Your task to perform on an android device: Open calendar and show me the third week of next month Image 0: 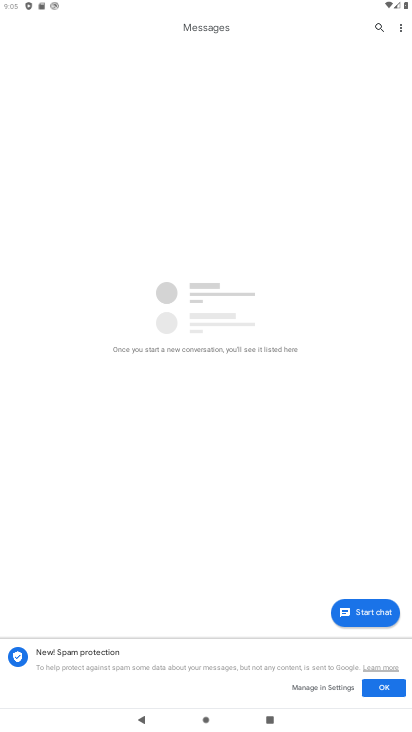
Step 0: press home button
Your task to perform on an android device: Open calendar and show me the third week of next month Image 1: 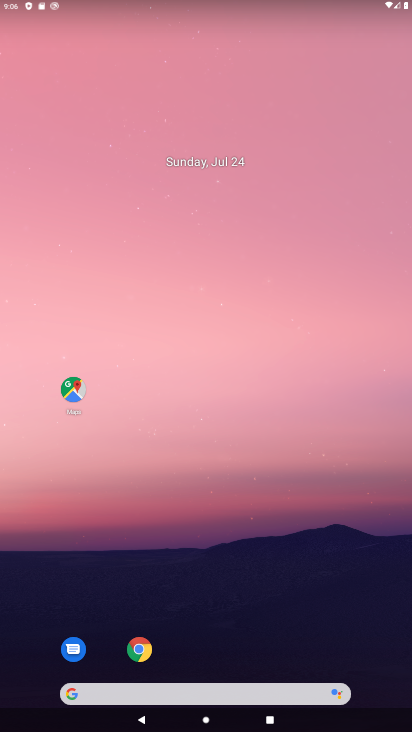
Step 1: click (224, 205)
Your task to perform on an android device: Open calendar and show me the third week of next month Image 2: 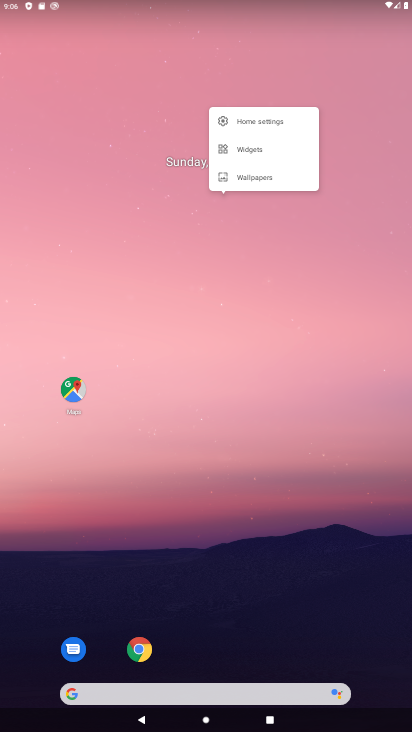
Step 2: drag from (178, 622) to (97, 63)
Your task to perform on an android device: Open calendar and show me the third week of next month Image 3: 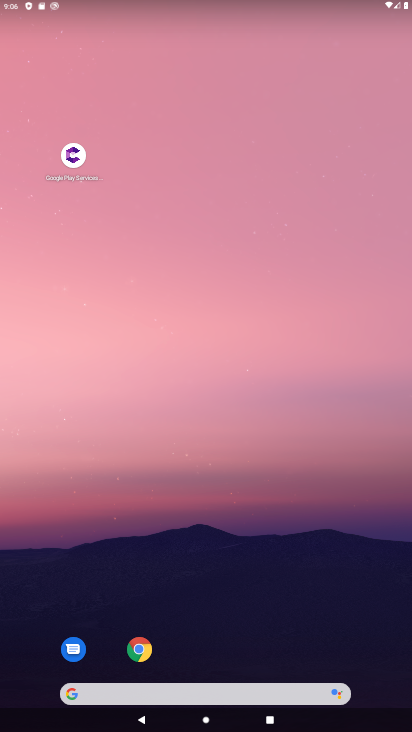
Step 3: click (191, 70)
Your task to perform on an android device: Open calendar and show me the third week of next month Image 4: 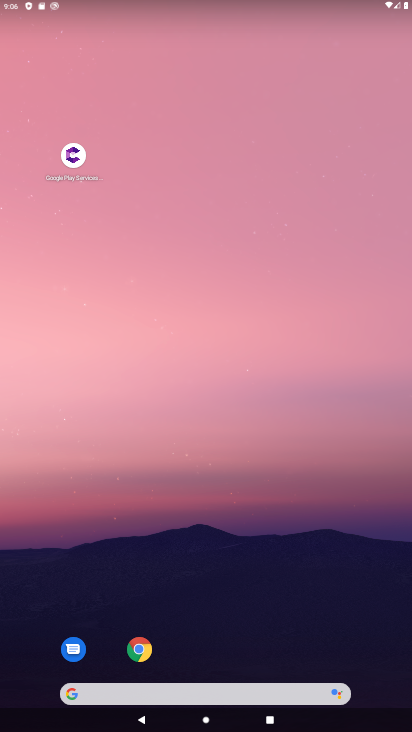
Step 4: drag from (183, 660) to (187, 114)
Your task to perform on an android device: Open calendar and show me the third week of next month Image 5: 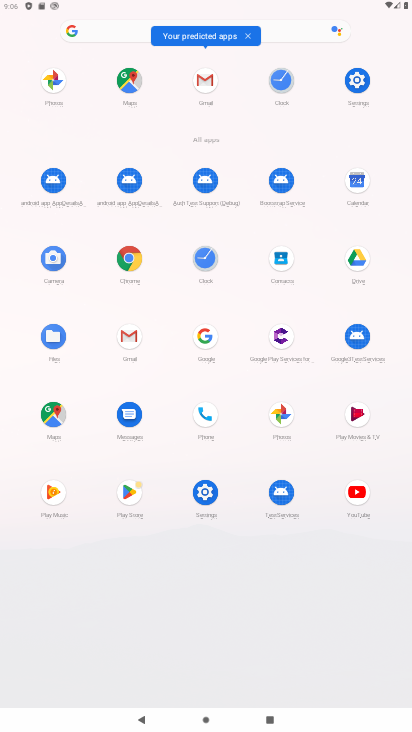
Step 5: click (352, 194)
Your task to perform on an android device: Open calendar and show me the third week of next month Image 6: 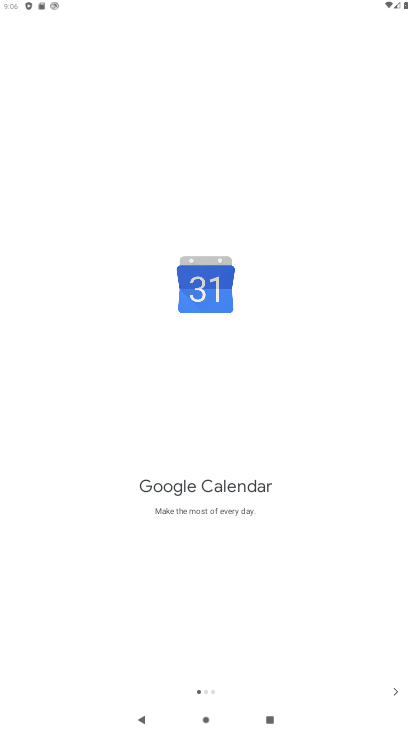
Step 6: click (397, 693)
Your task to perform on an android device: Open calendar and show me the third week of next month Image 7: 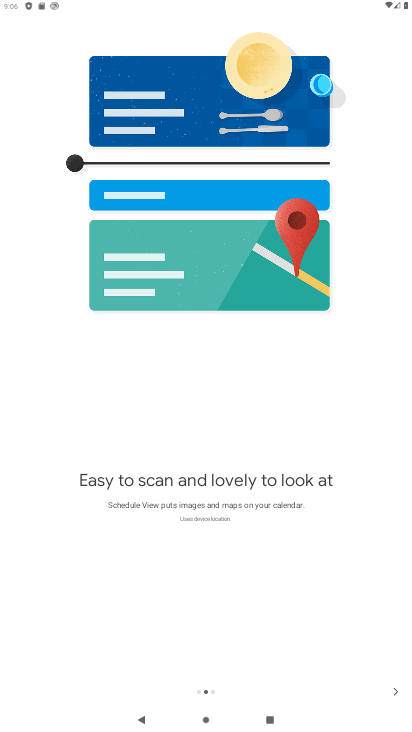
Step 7: click (397, 693)
Your task to perform on an android device: Open calendar and show me the third week of next month Image 8: 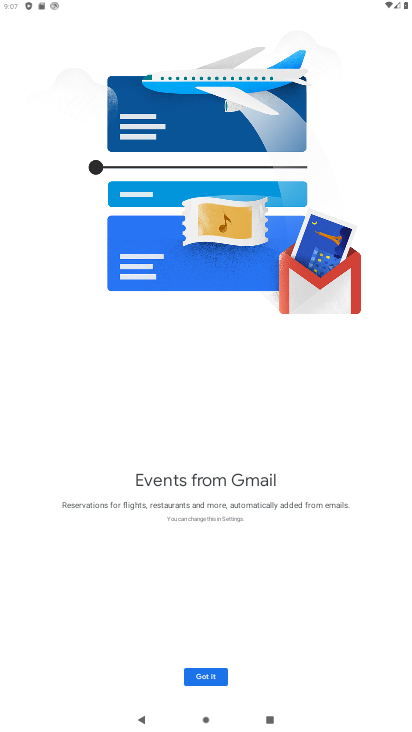
Step 8: click (397, 693)
Your task to perform on an android device: Open calendar and show me the third week of next month Image 9: 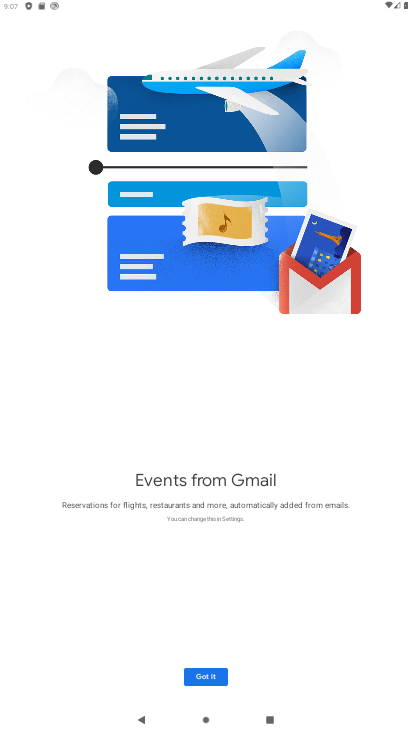
Step 9: click (394, 698)
Your task to perform on an android device: Open calendar and show me the third week of next month Image 10: 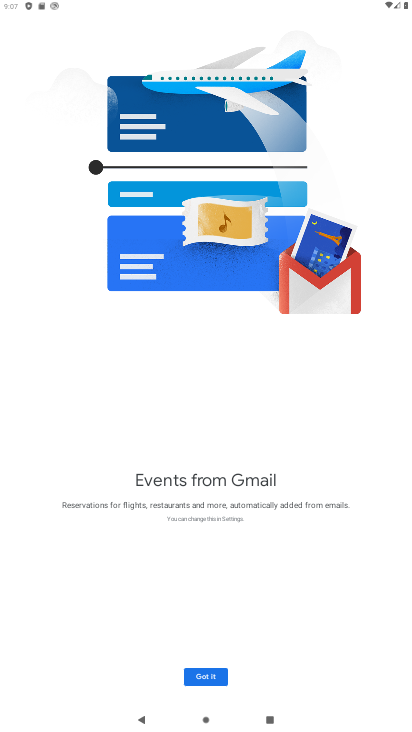
Step 10: click (185, 678)
Your task to perform on an android device: Open calendar and show me the third week of next month Image 11: 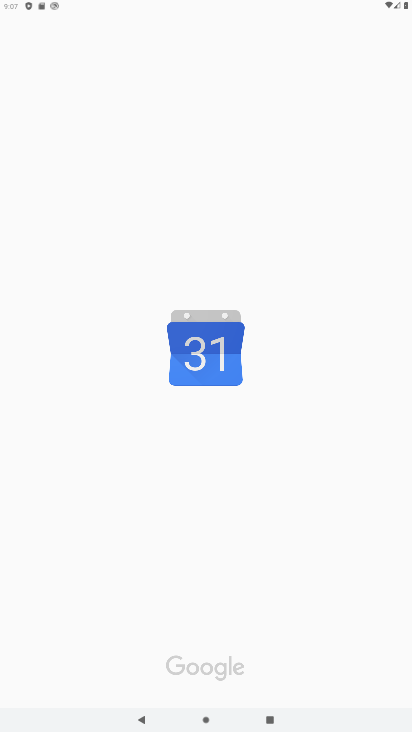
Step 11: click (185, 678)
Your task to perform on an android device: Open calendar and show me the third week of next month Image 12: 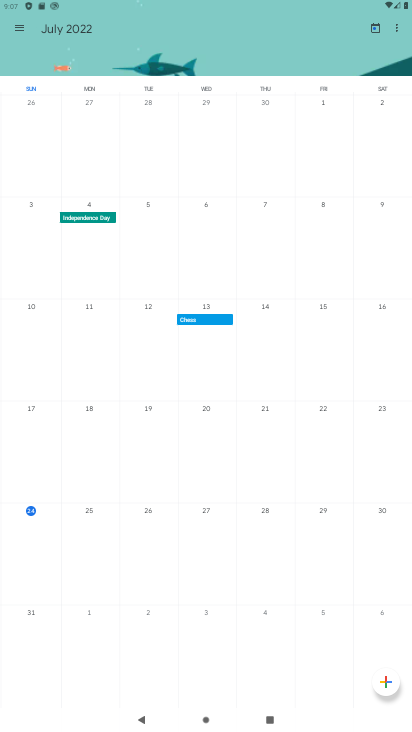
Step 12: drag from (312, 326) to (8, 310)
Your task to perform on an android device: Open calendar and show me the third week of next month Image 13: 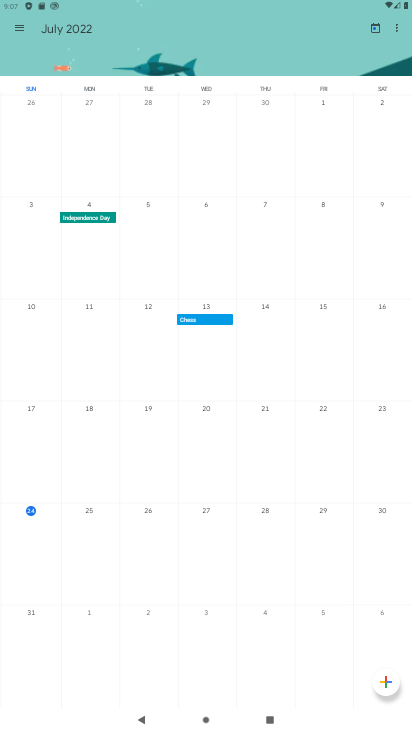
Step 13: drag from (299, 313) to (44, 293)
Your task to perform on an android device: Open calendar and show me the third week of next month Image 14: 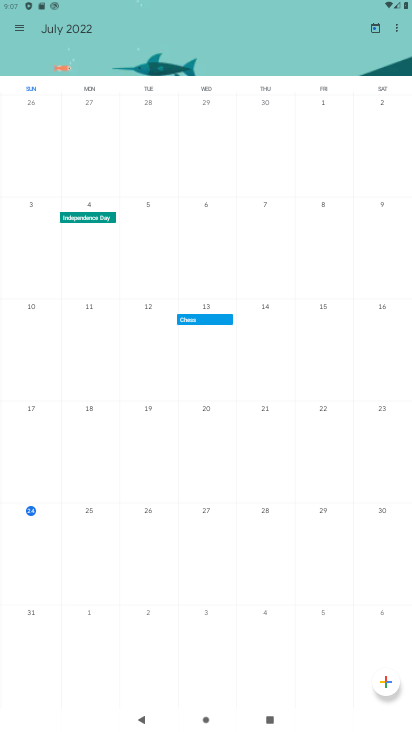
Step 14: drag from (346, 293) to (8, 300)
Your task to perform on an android device: Open calendar and show me the third week of next month Image 15: 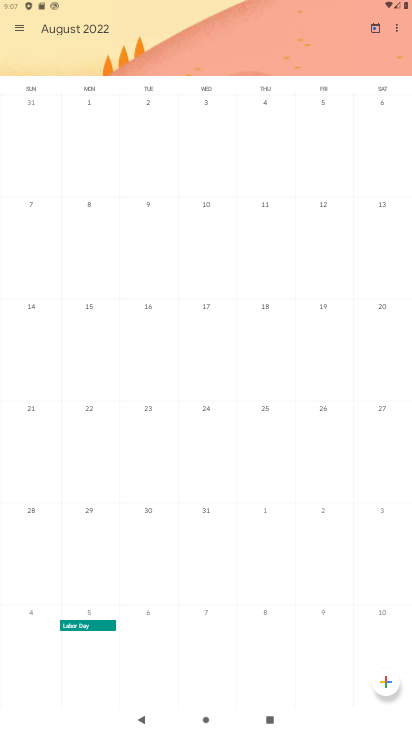
Step 15: click (35, 413)
Your task to perform on an android device: Open calendar and show me the third week of next month Image 16: 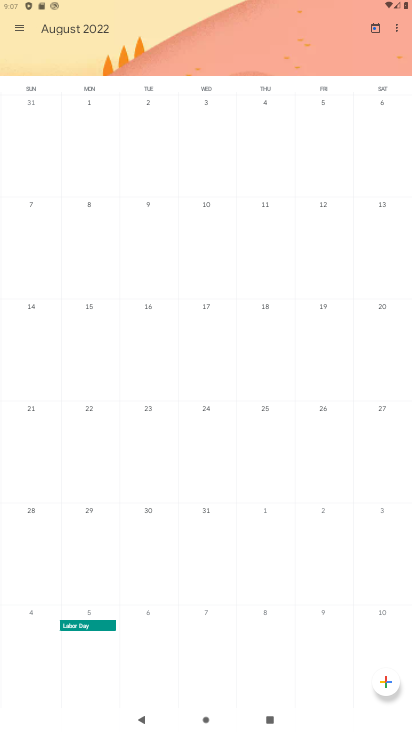
Step 16: click (35, 413)
Your task to perform on an android device: Open calendar and show me the third week of next month Image 17: 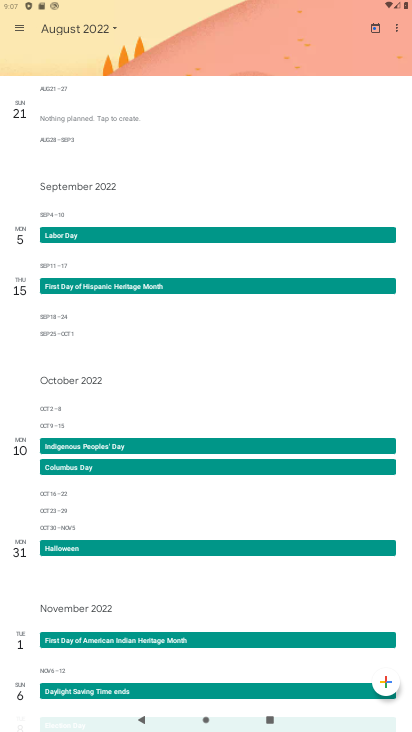
Step 17: task complete